Your task to perform on an android device: turn pop-ups on in chrome Image 0: 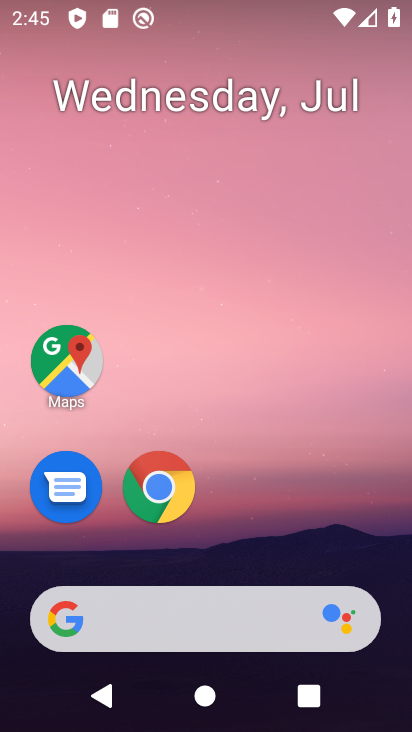
Step 0: click (166, 502)
Your task to perform on an android device: turn pop-ups on in chrome Image 1: 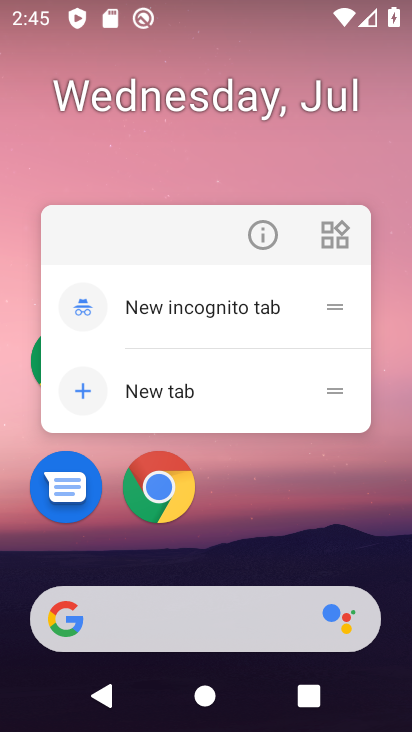
Step 1: click (166, 502)
Your task to perform on an android device: turn pop-ups on in chrome Image 2: 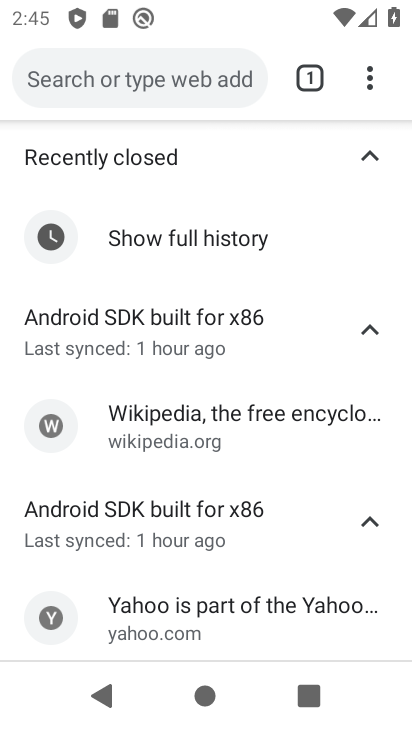
Step 2: click (371, 82)
Your task to perform on an android device: turn pop-ups on in chrome Image 3: 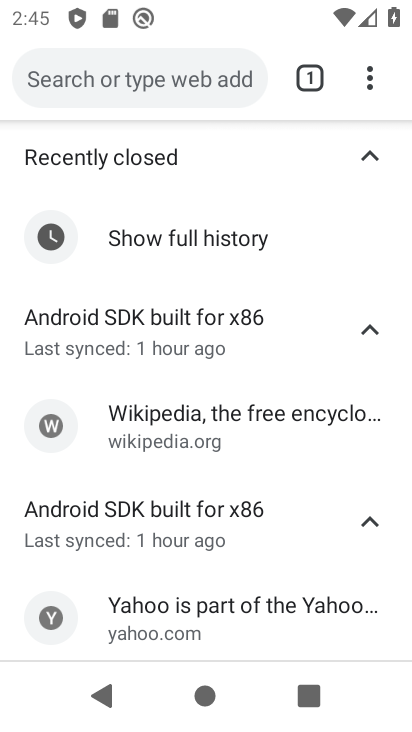
Step 3: click (375, 91)
Your task to perform on an android device: turn pop-ups on in chrome Image 4: 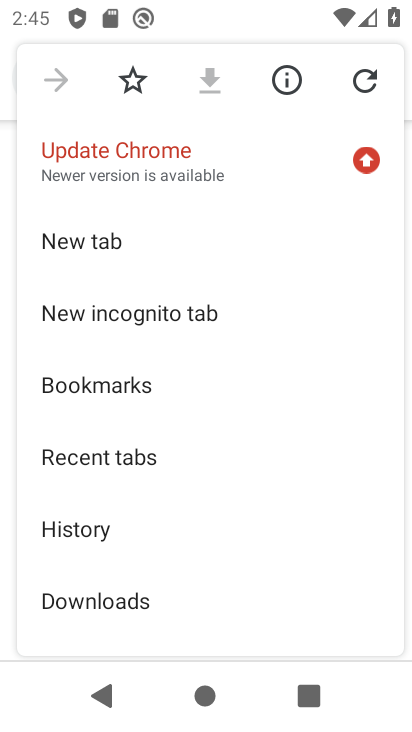
Step 4: drag from (211, 630) to (238, 290)
Your task to perform on an android device: turn pop-ups on in chrome Image 5: 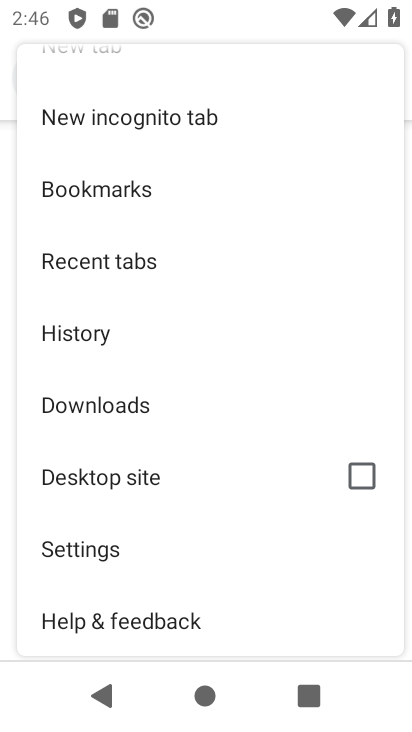
Step 5: click (217, 546)
Your task to perform on an android device: turn pop-ups on in chrome Image 6: 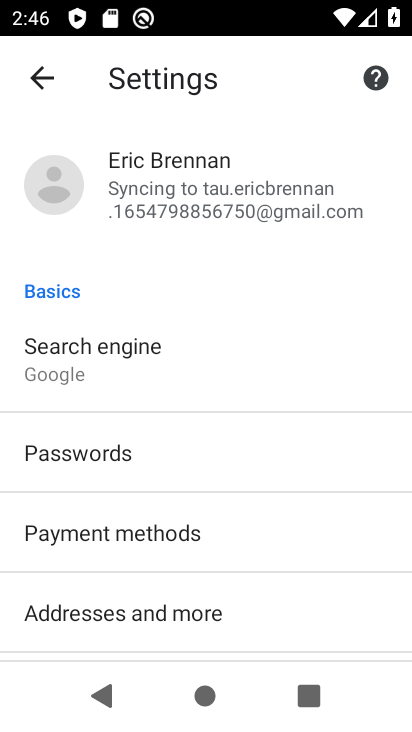
Step 6: drag from (284, 640) to (279, 311)
Your task to perform on an android device: turn pop-ups on in chrome Image 7: 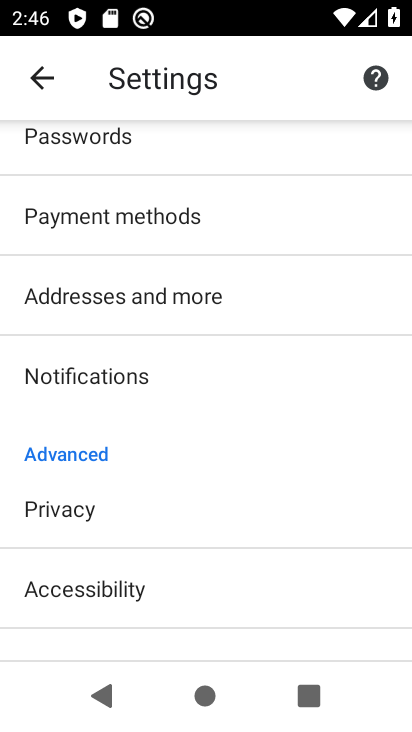
Step 7: drag from (222, 567) to (219, 189)
Your task to perform on an android device: turn pop-ups on in chrome Image 8: 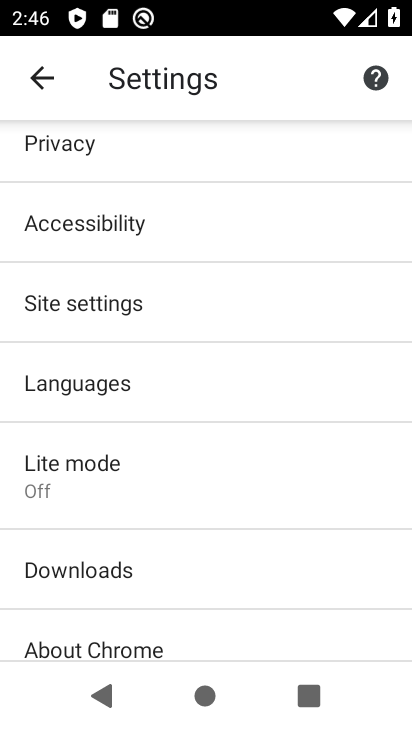
Step 8: click (258, 301)
Your task to perform on an android device: turn pop-ups on in chrome Image 9: 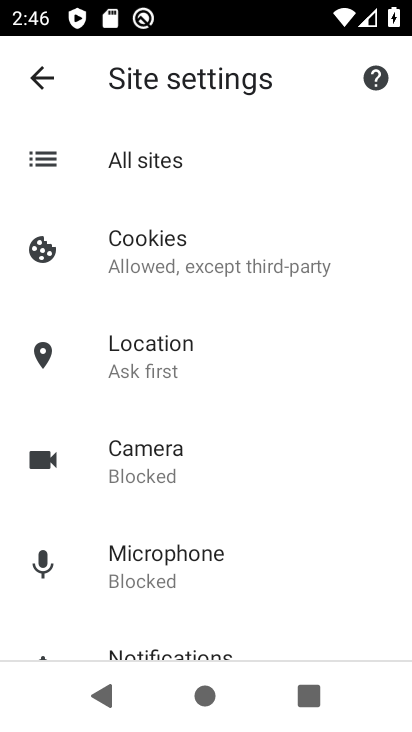
Step 9: drag from (286, 636) to (291, 212)
Your task to perform on an android device: turn pop-ups on in chrome Image 10: 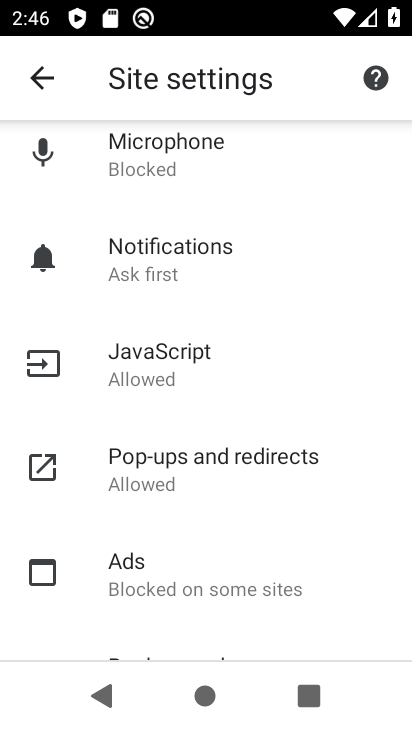
Step 10: click (308, 458)
Your task to perform on an android device: turn pop-ups on in chrome Image 11: 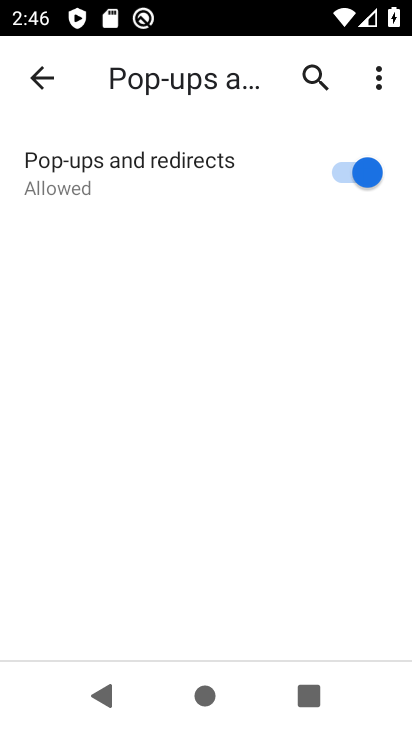
Step 11: task complete